Your task to perform on an android device: Open Google Chrome and click the shortcut for Amazon.com Image 0: 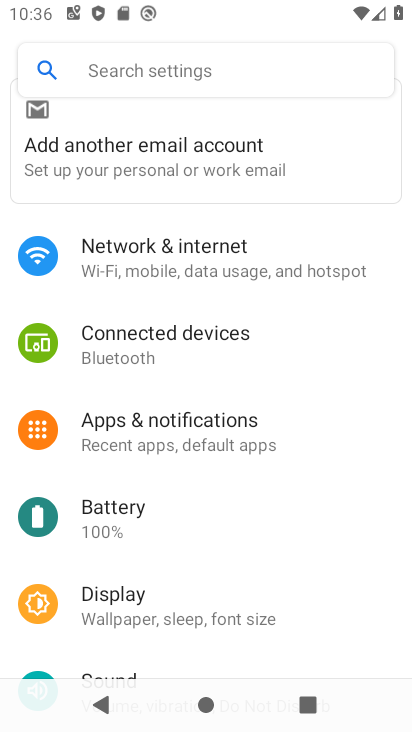
Step 0: press home button
Your task to perform on an android device: Open Google Chrome and click the shortcut for Amazon.com Image 1: 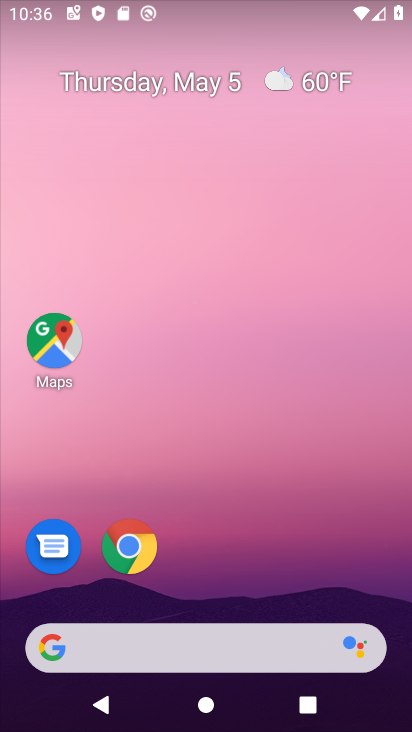
Step 1: click (120, 561)
Your task to perform on an android device: Open Google Chrome and click the shortcut for Amazon.com Image 2: 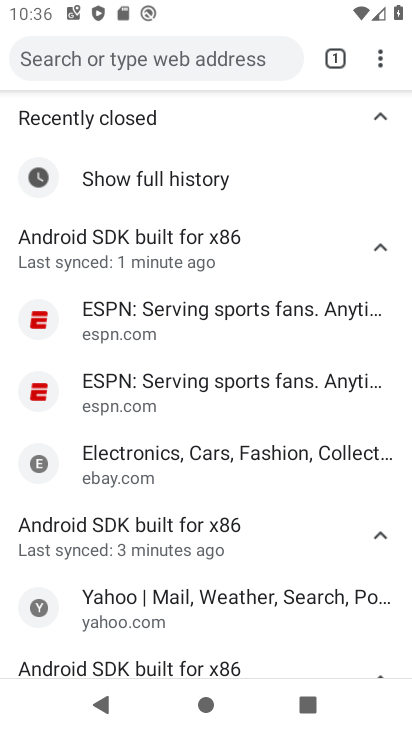
Step 2: click (378, 59)
Your task to perform on an android device: Open Google Chrome and click the shortcut for Amazon.com Image 3: 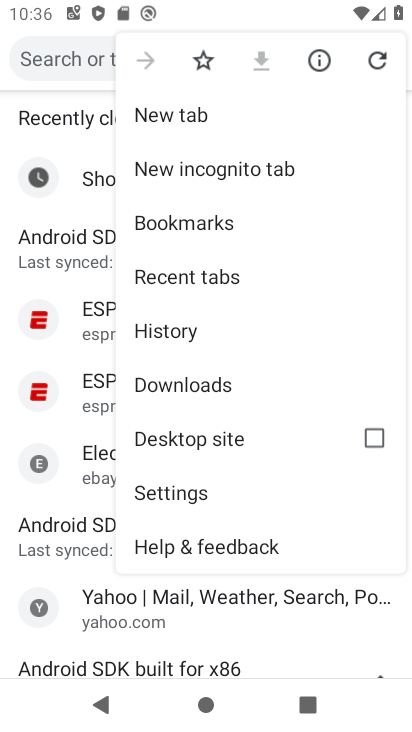
Step 3: click (203, 112)
Your task to perform on an android device: Open Google Chrome and click the shortcut for Amazon.com Image 4: 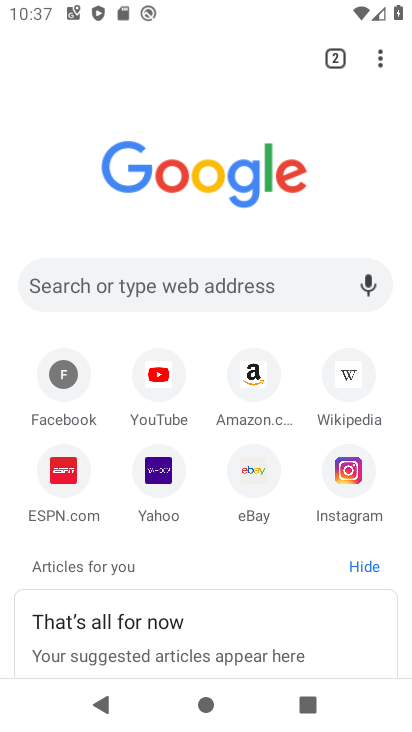
Step 4: click (267, 384)
Your task to perform on an android device: Open Google Chrome and click the shortcut for Amazon.com Image 5: 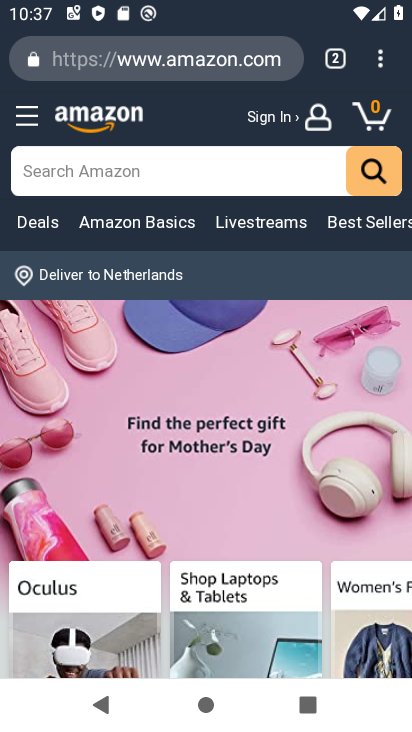
Step 5: task complete